Your task to perform on an android device: open chrome privacy settings Image 0: 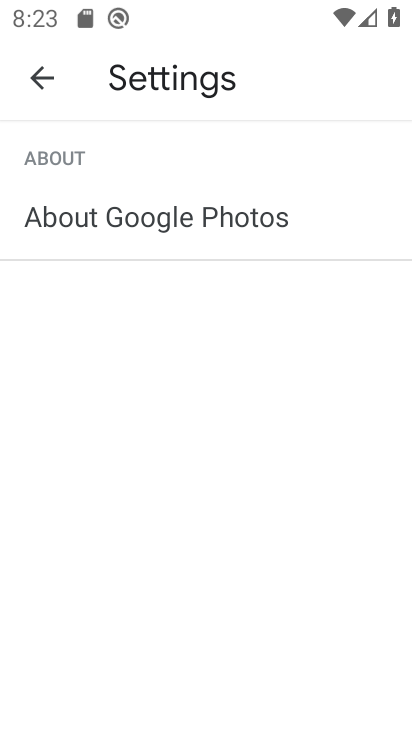
Step 0: press home button
Your task to perform on an android device: open chrome privacy settings Image 1: 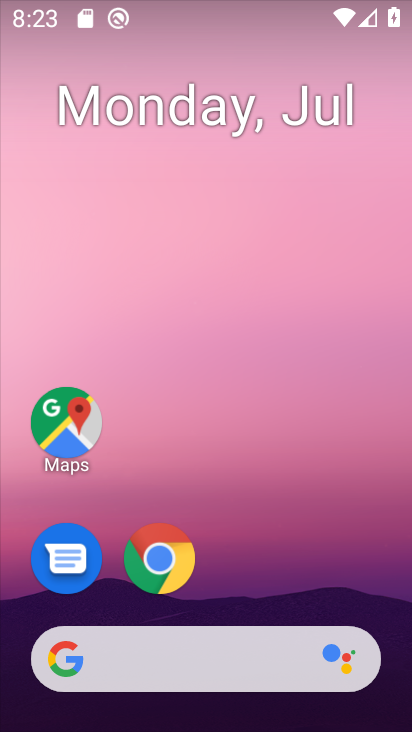
Step 1: drag from (318, 589) to (320, 153)
Your task to perform on an android device: open chrome privacy settings Image 2: 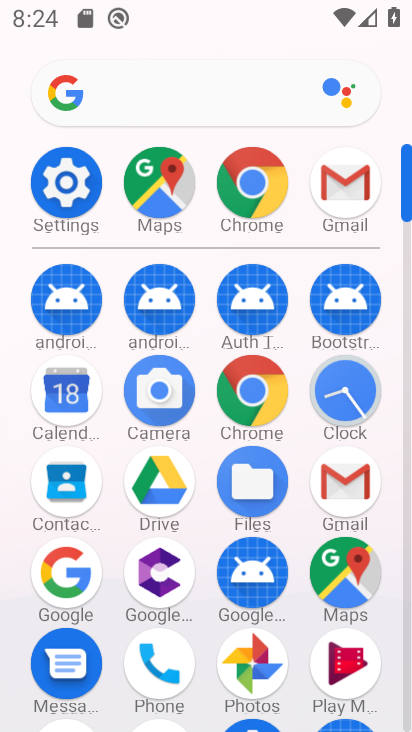
Step 2: click (253, 402)
Your task to perform on an android device: open chrome privacy settings Image 3: 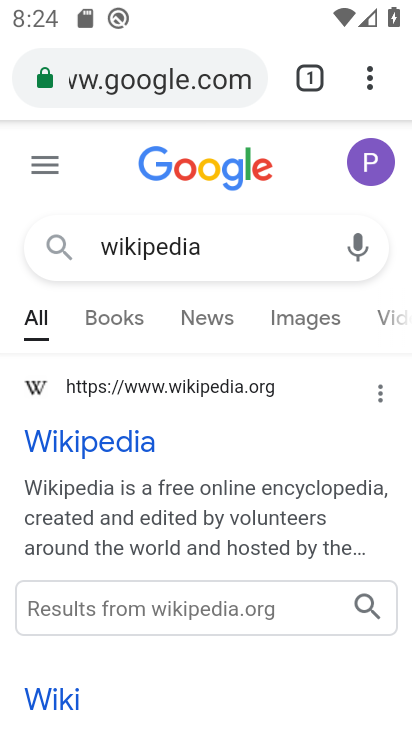
Step 3: click (366, 85)
Your task to perform on an android device: open chrome privacy settings Image 4: 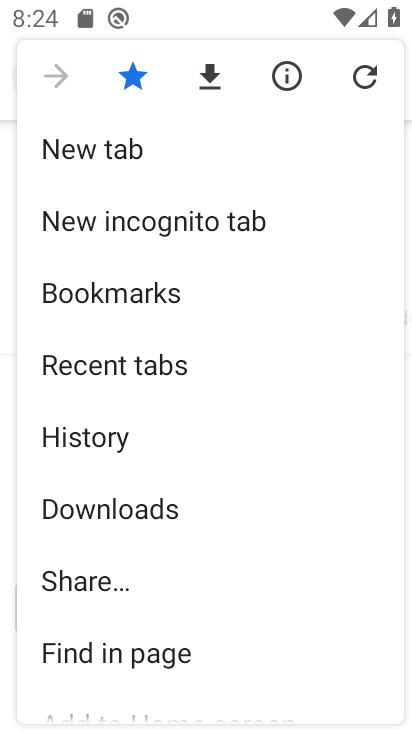
Step 4: drag from (278, 493) to (277, 427)
Your task to perform on an android device: open chrome privacy settings Image 5: 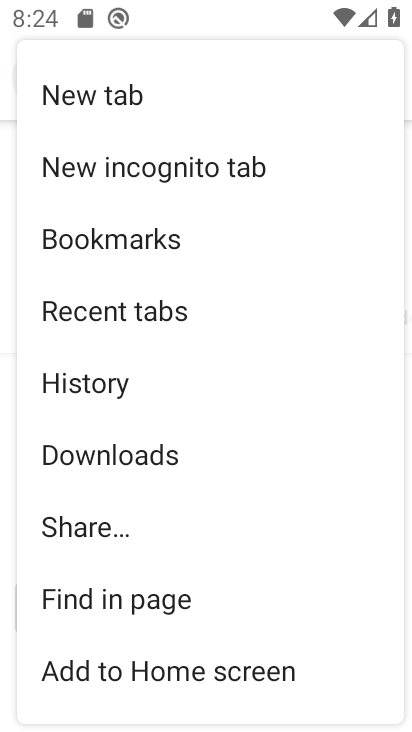
Step 5: drag from (309, 535) to (306, 447)
Your task to perform on an android device: open chrome privacy settings Image 6: 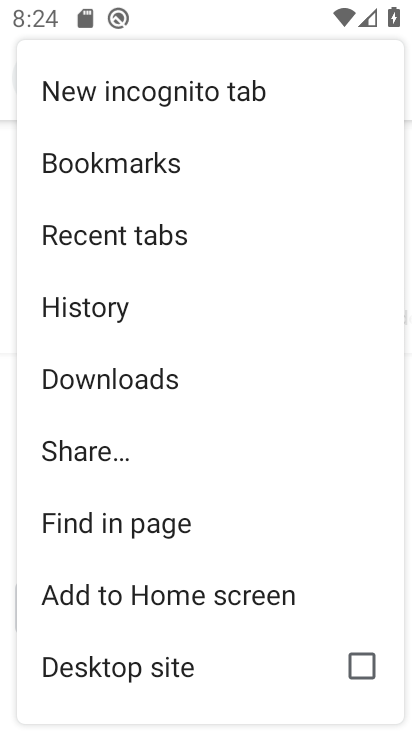
Step 6: drag from (319, 540) to (322, 441)
Your task to perform on an android device: open chrome privacy settings Image 7: 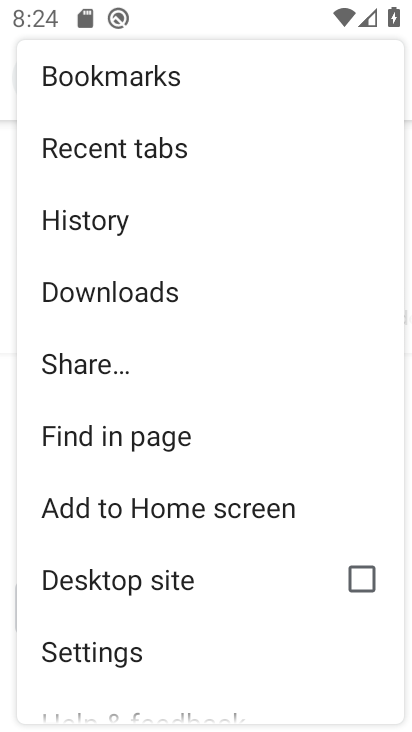
Step 7: drag from (282, 582) to (285, 471)
Your task to perform on an android device: open chrome privacy settings Image 8: 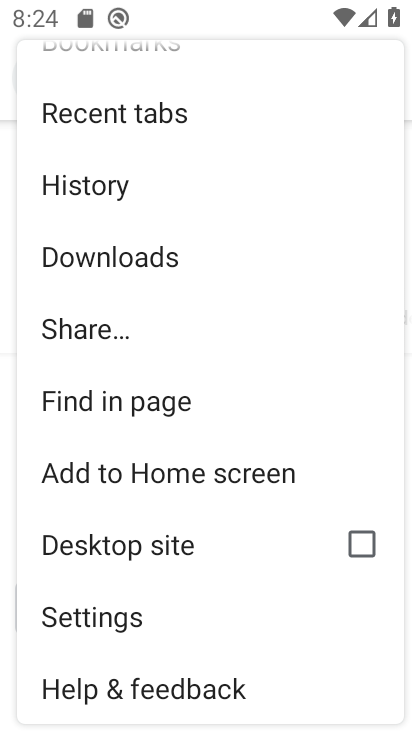
Step 8: click (156, 616)
Your task to perform on an android device: open chrome privacy settings Image 9: 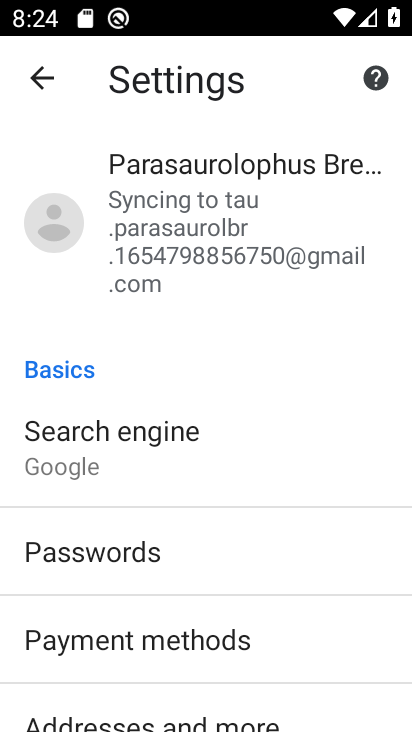
Step 9: drag from (315, 570) to (318, 401)
Your task to perform on an android device: open chrome privacy settings Image 10: 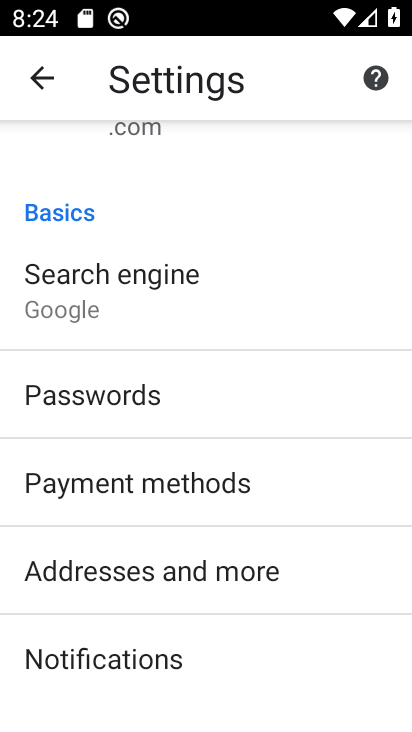
Step 10: drag from (330, 599) to (335, 459)
Your task to perform on an android device: open chrome privacy settings Image 11: 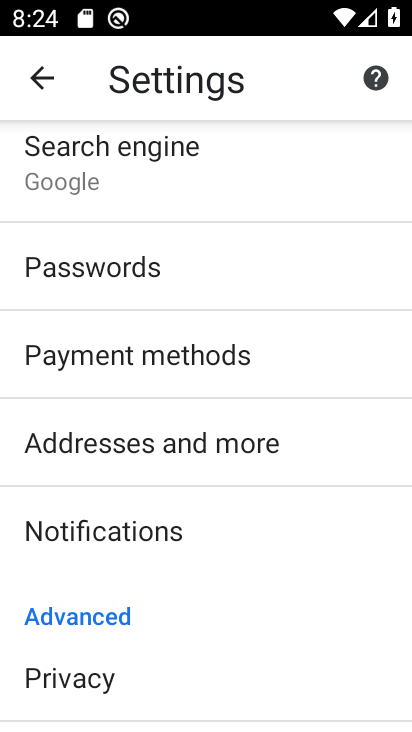
Step 11: drag from (335, 583) to (338, 465)
Your task to perform on an android device: open chrome privacy settings Image 12: 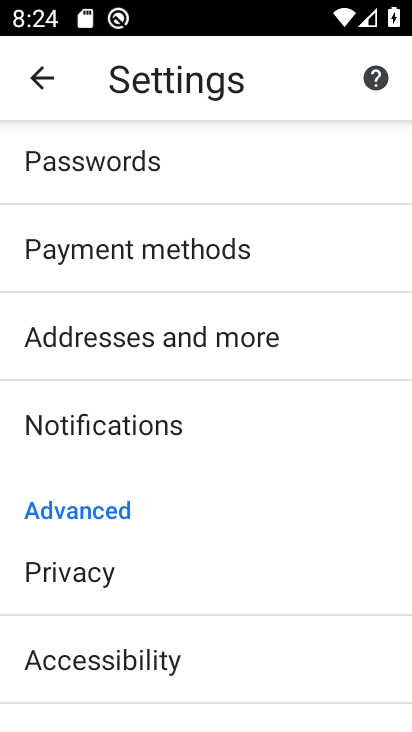
Step 12: drag from (320, 568) to (328, 452)
Your task to perform on an android device: open chrome privacy settings Image 13: 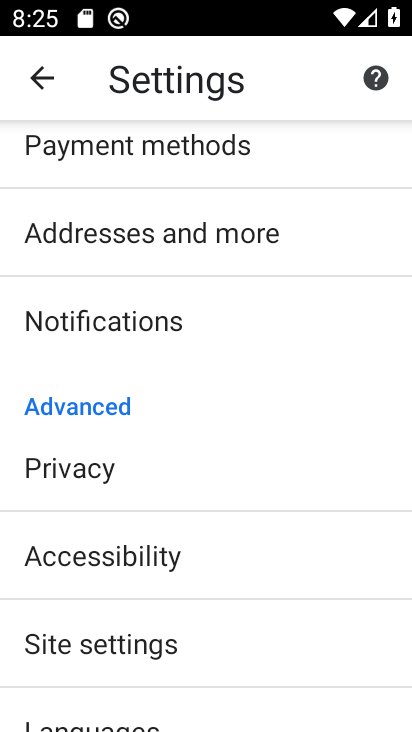
Step 13: click (168, 478)
Your task to perform on an android device: open chrome privacy settings Image 14: 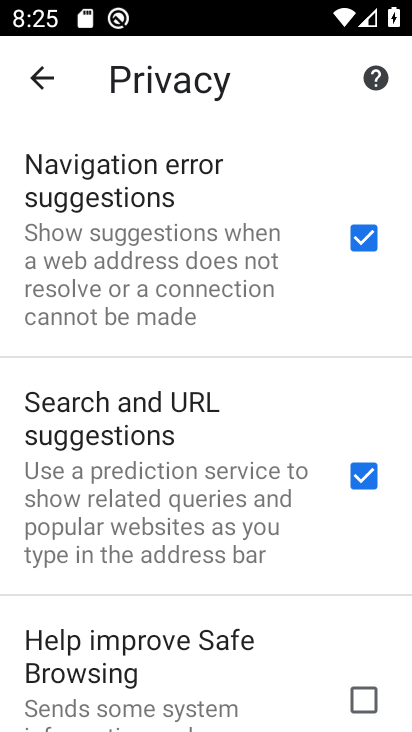
Step 14: task complete